Your task to perform on an android device: Clear the shopping cart on target. Add alienware area 51 to the cart on target Image 0: 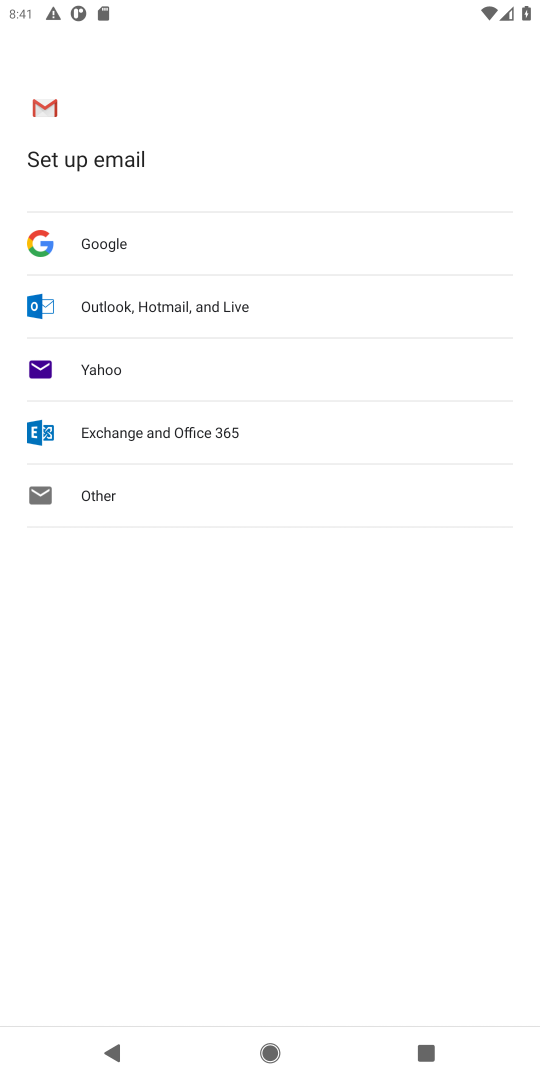
Step 0: press home button
Your task to perform on an android device: Clear the shopping cart on target. Add alienware area 51 to the cart on target Image 1: 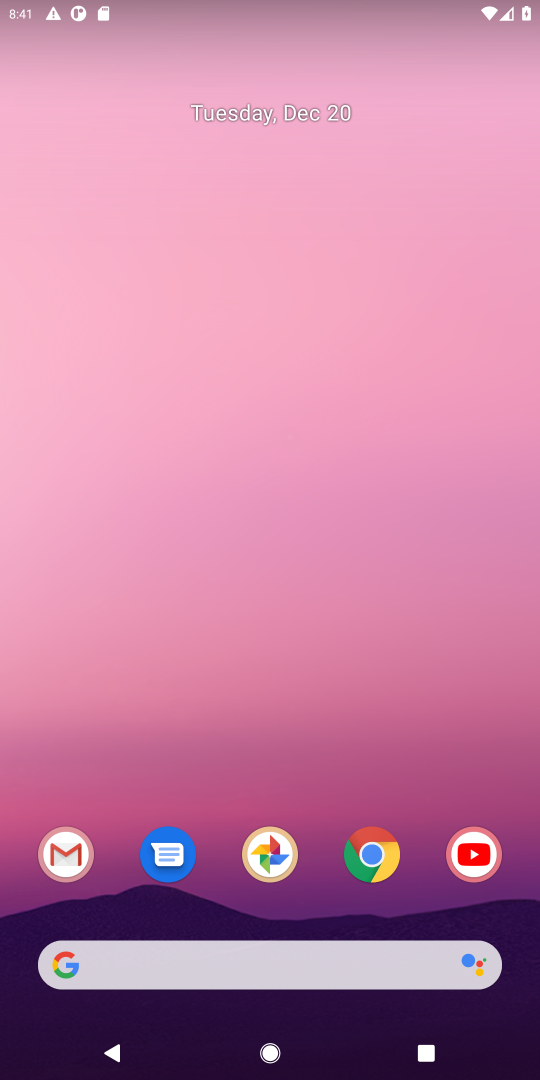
Step 1: click (371, 857)
Your task to perform on an android device: Clear the shopping cart on target. Add alienware area 51 to the cart on target Image 2: 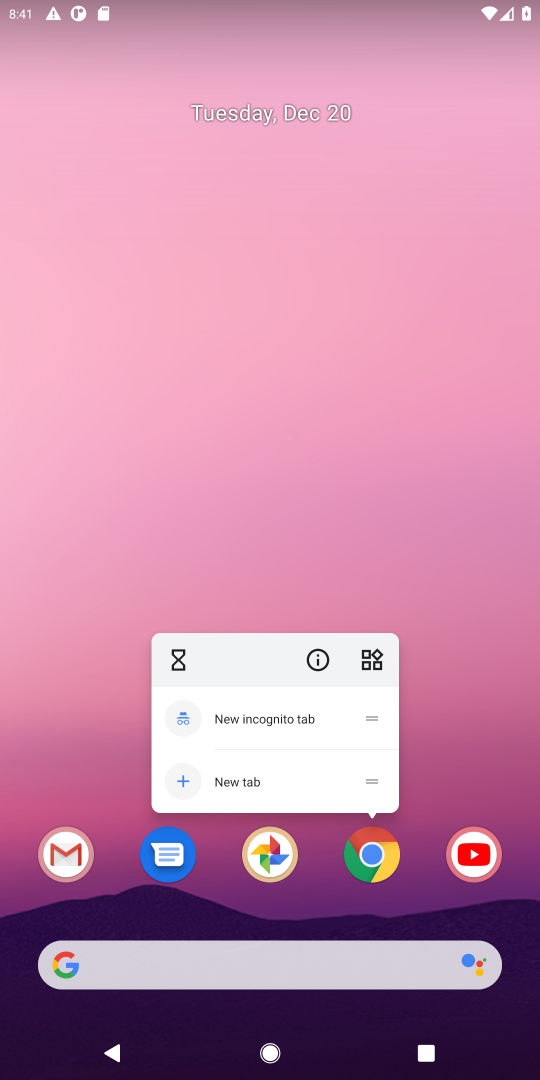
Step 2: click (371, 857)
Your task to perform on an android device: Clear the shopping cart on target. Add alienware area 51 to the cart on target Image 3: 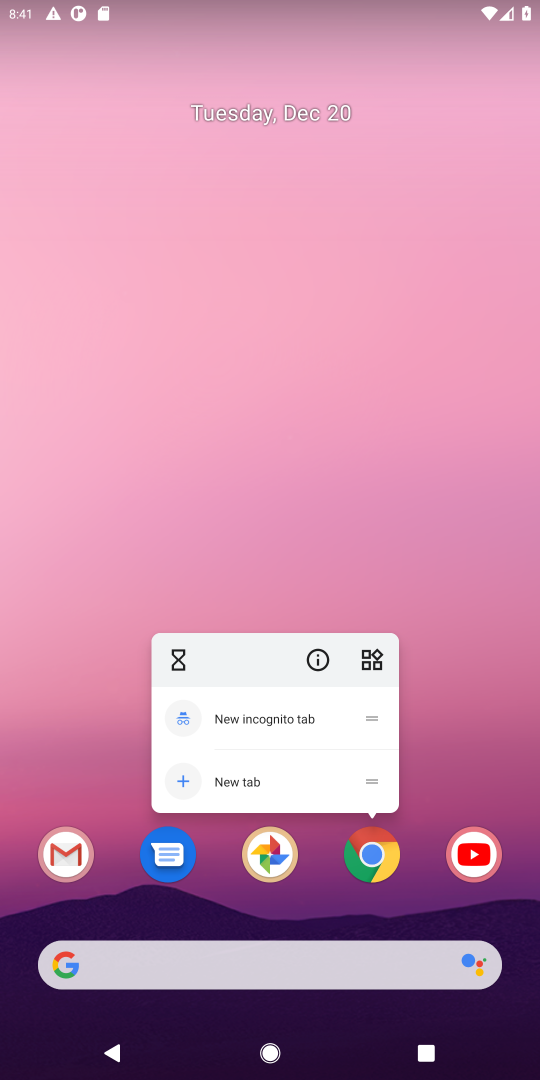
Step 3: click (371, 856)
Your task to perform on an android device: Clear the shopping cart on target. Add alienware area 51 to the cart on target Image 4: 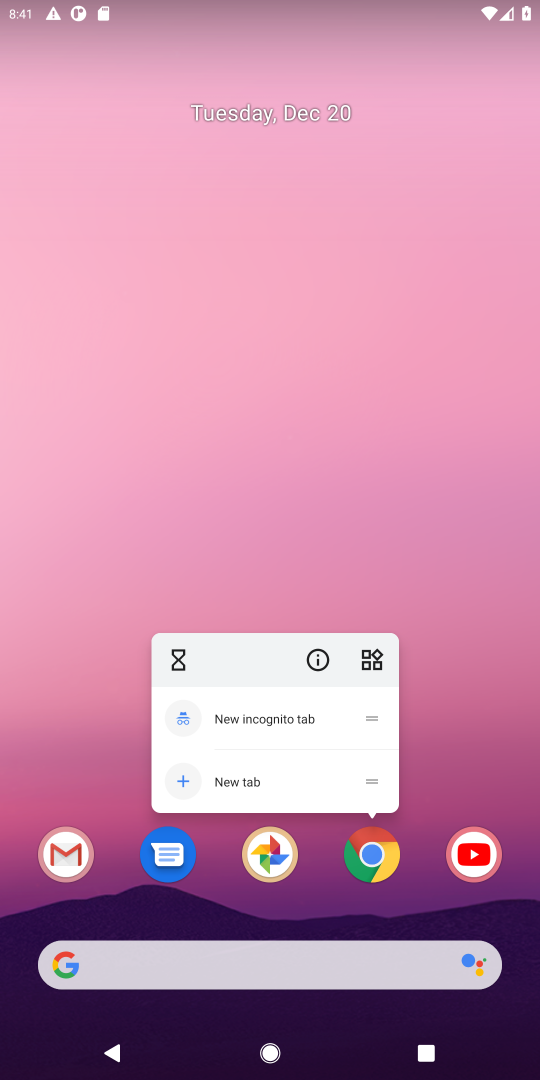
Step 4: click (382, 851)
Your task to perform on an android device: Clear the shopping cart on target. Add alienware area 51 to the cart on target Image 5: 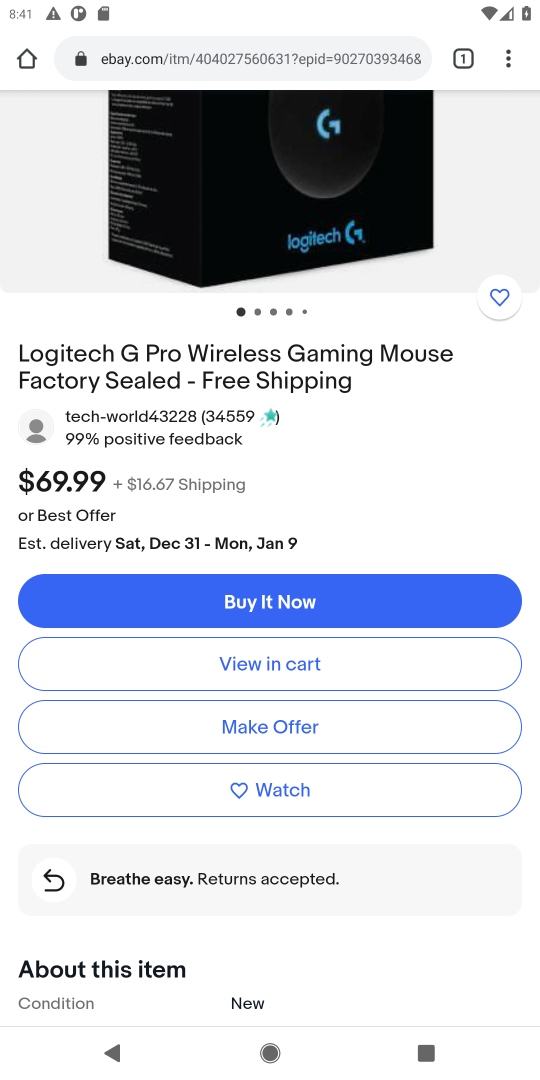
Step 5: click (186, 60)
Your task to perform on an android device: Clear the shopping cart on target. Add alienware area 51 to the cart on target Image 6: 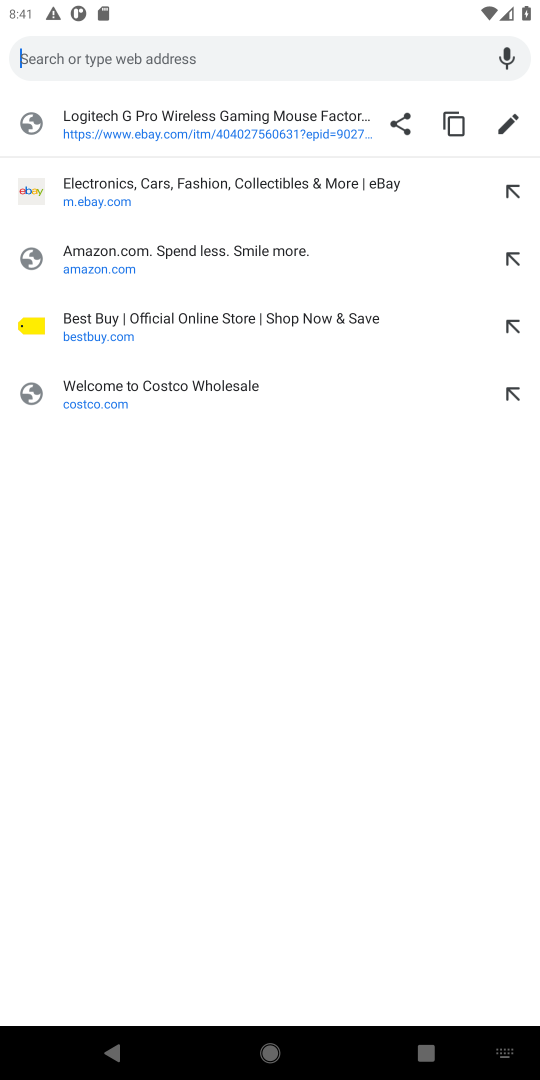
Step 6: type "target.com"
Your task to perform on an android device: Clear the shopping cart on target. Add alienware area 51 to the cart on target Image 7: 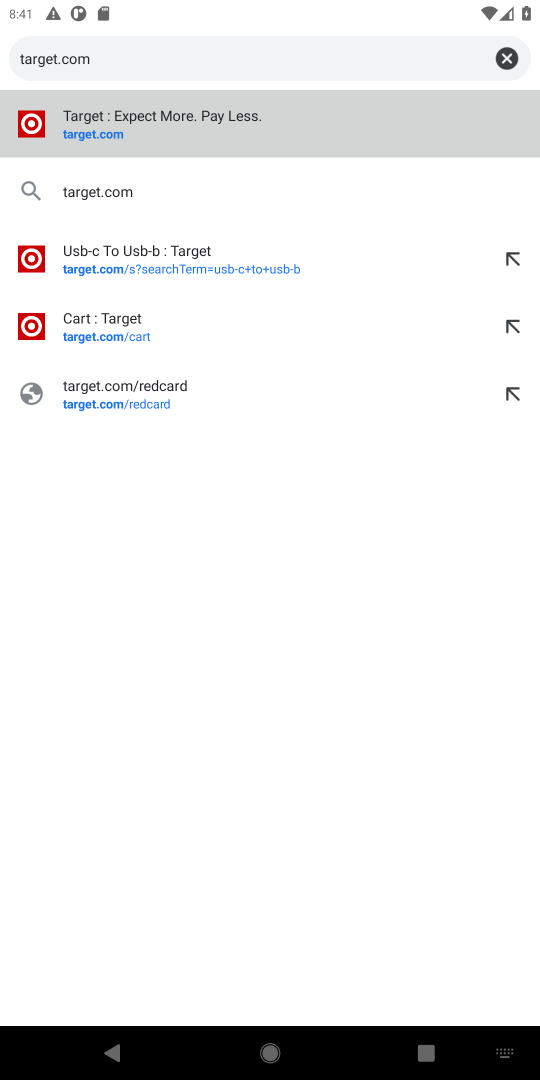
Step 7: click (107, 140)
Your task to perform on an android device: Clear the shopping cart on target. Add alienware area 51 to the cart on target Image 8: 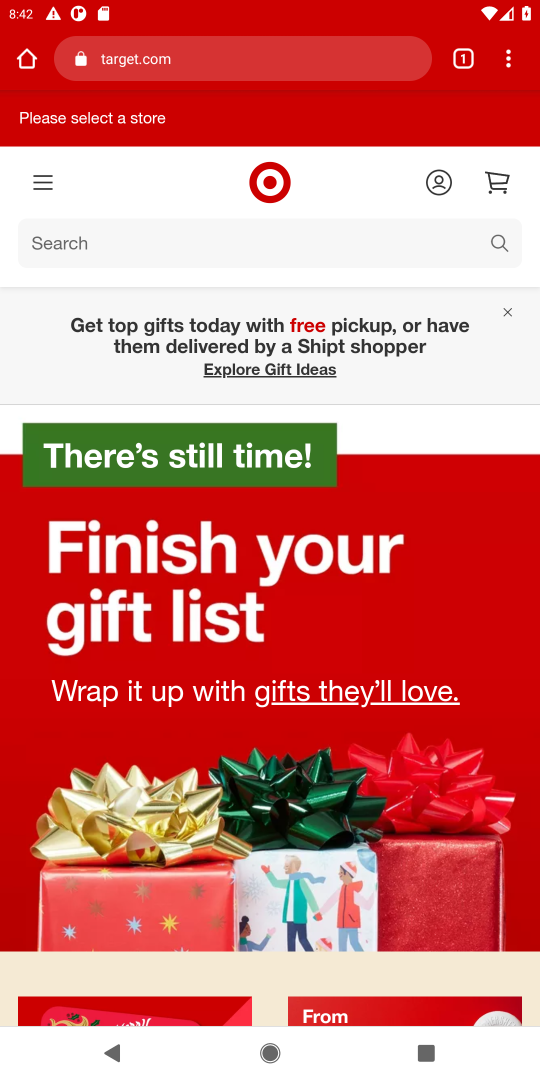
Step 8: click (499, 183)
Your task to perform on an android device: Clear the shopping cart on target. Add alienware area 51 to the cart on target Image 9: 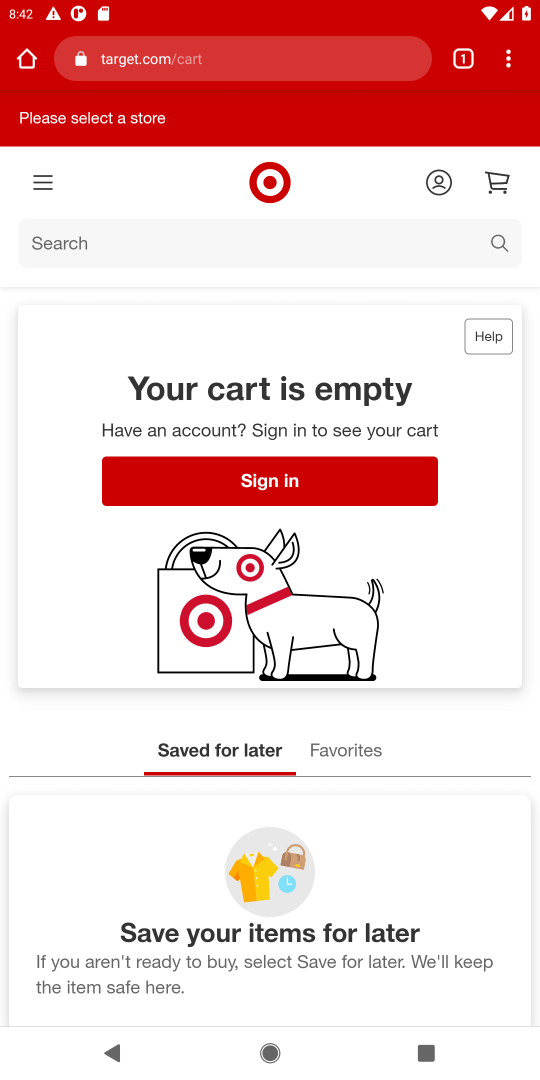
Step 9: click (55, 248)
Your task to perform on an android device: Clear the shopping cart on target. Add alienware area 51 to the cart on target Image 10: 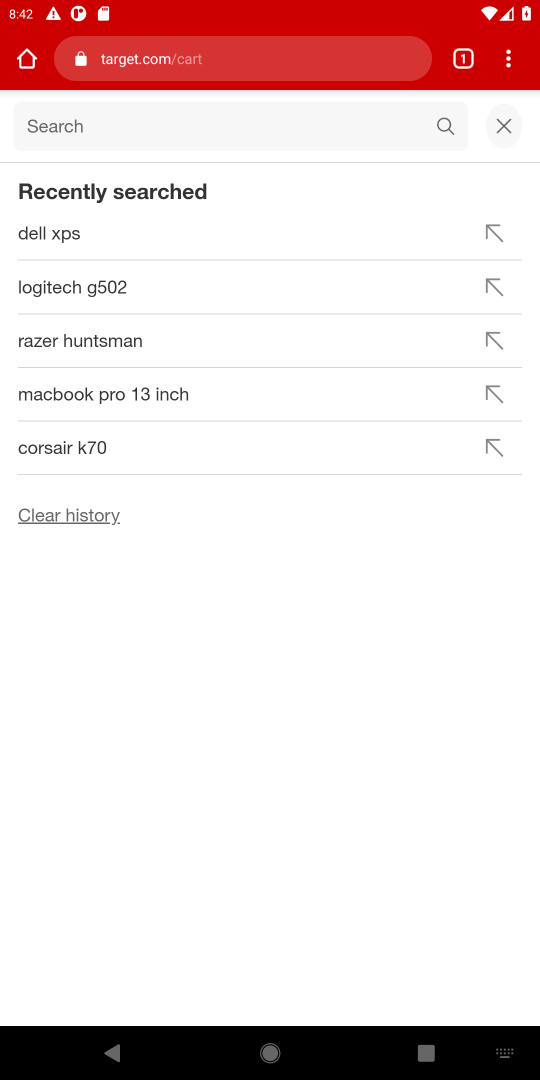
Step 10: type "alienware area 51"
Your task to perform on an android device: Clear the shopping cart on target. Add alienware area 51 to the cart on target Image 11: 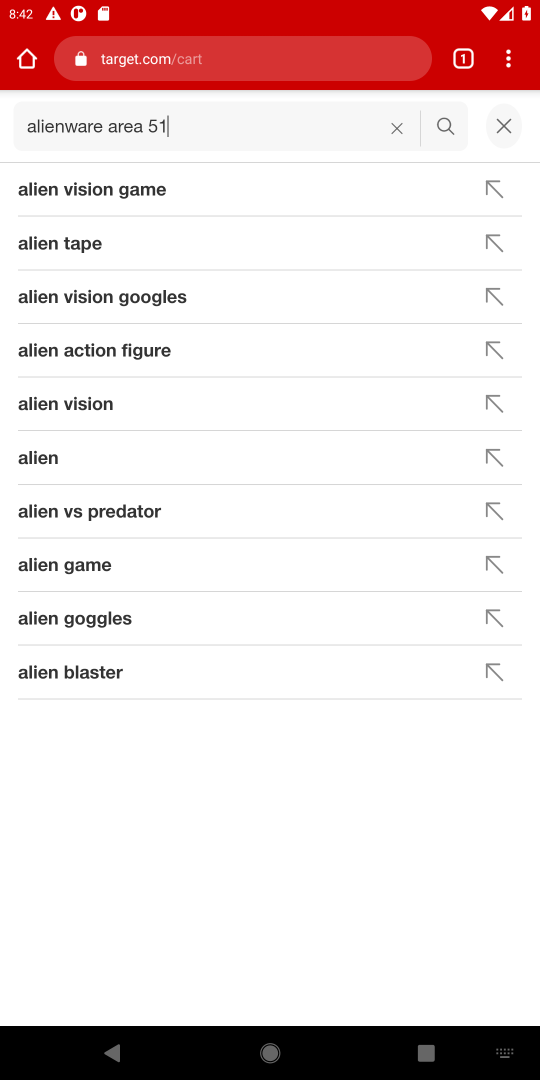
Step 11: click (444, 133)
Your task to perform on an android device: Clear the shopping cart on target. Add alienware area 51 to the cart on target Image 12: 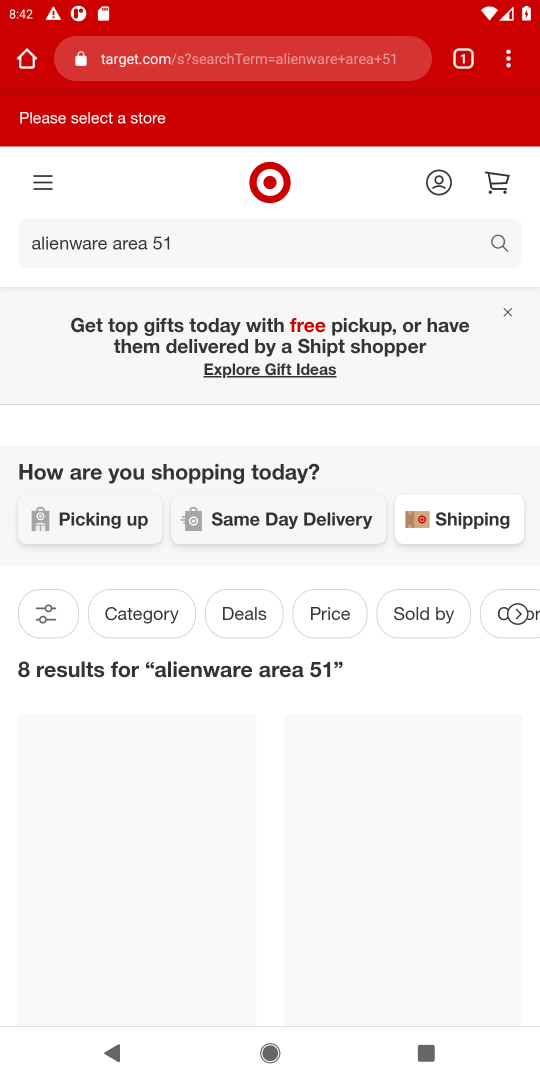
Step 12: task complete